Your task to perform on an android device: Open battery settings Image 0: 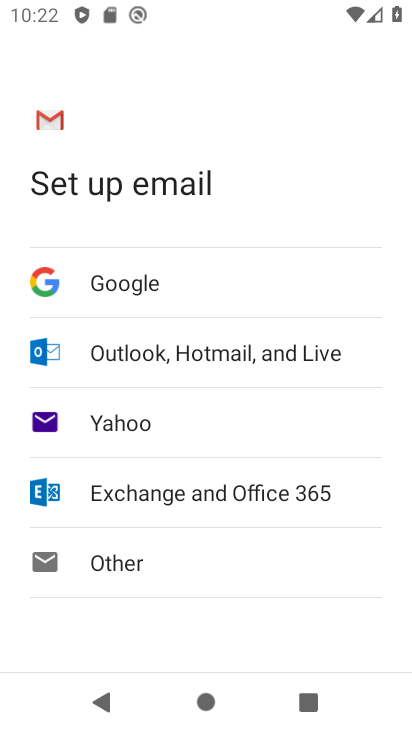
Step 0: press home button
Your task to perform on an android device: Open battery settings Image 1: 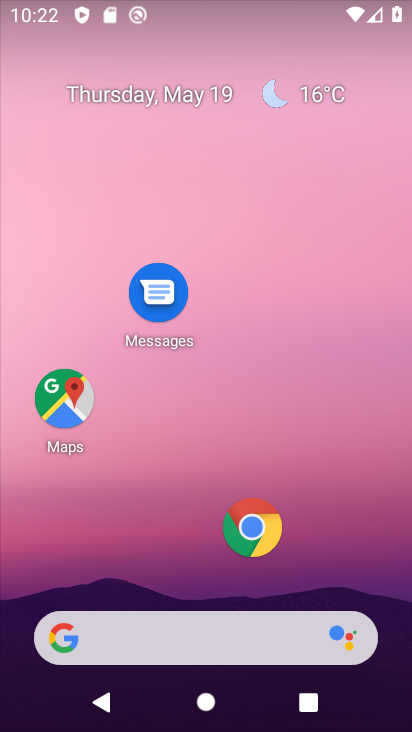
Step 1: drag from (195, 184) to (201, 134)
Your task to perform on an android device: Open battery settings Image 2: 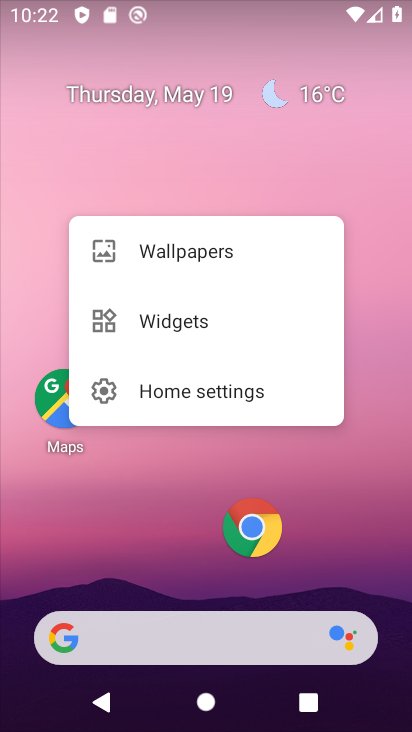
Step 2: click (48, 281)
Your task to perform on an android device: Open battery settings Image 3: 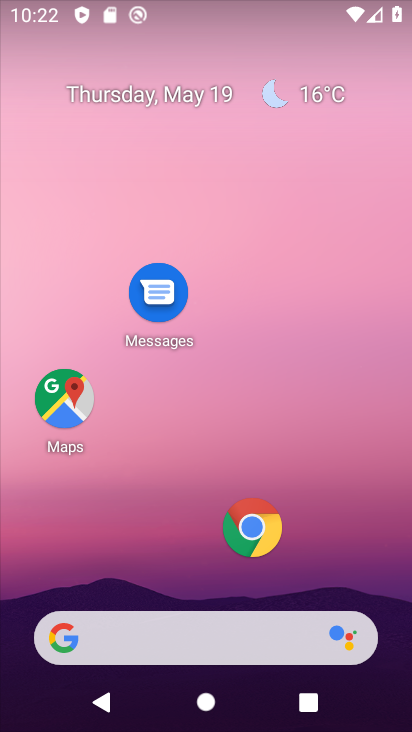
Step 3: click (264, 271)
Your task to perform on an android device: Open battery settings Image 4: 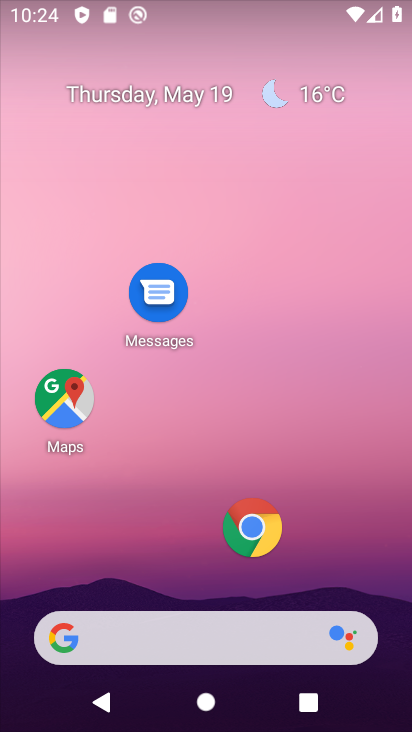
Step 4: drag from (200, 601) to (245, 193)
Your task to perform on an android device: Open battery settings Image 5: 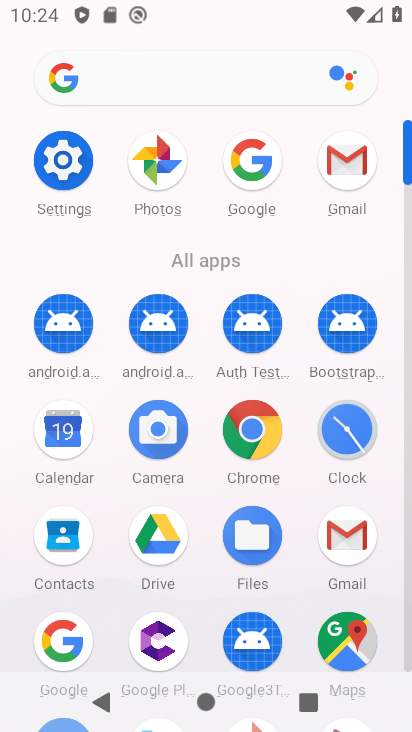
Step 5: drag from (196, 510) to (196, 122)
Your task to perform on an android device: Open battery settings Image 6: 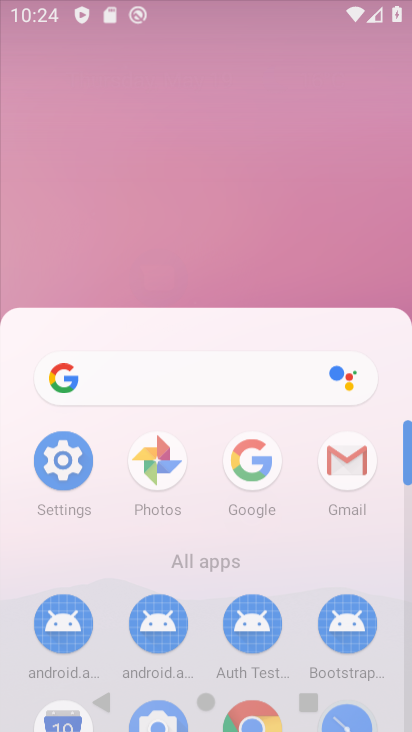
Step 6: click (175, 148)
Your task to perform on an android device: Open battery settings Image 7: 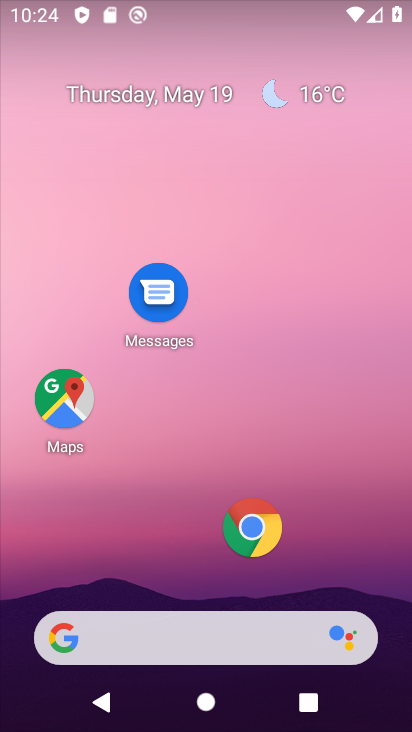
Step 7: click (74, 168)
Your task to perform on an android device: Open battery settings Image 8: 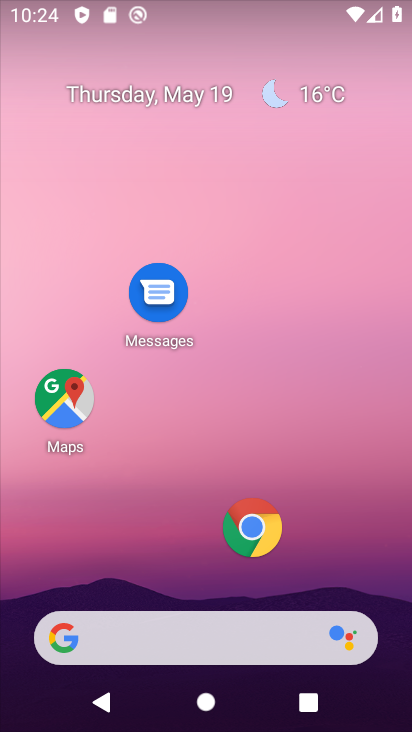
Step 8: drag from (222, 590) to (217, 221)
Your task to perform on an android device: Open battery settings Image 9: 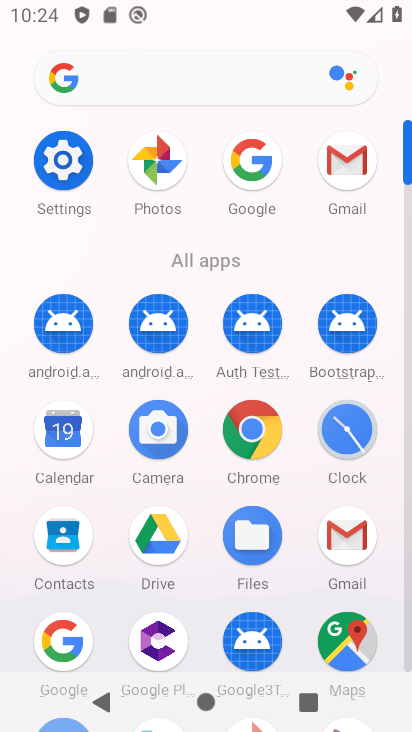
Step 9: click (63, 162)
Your task to perform on an android device: Open battery settings Image 10: 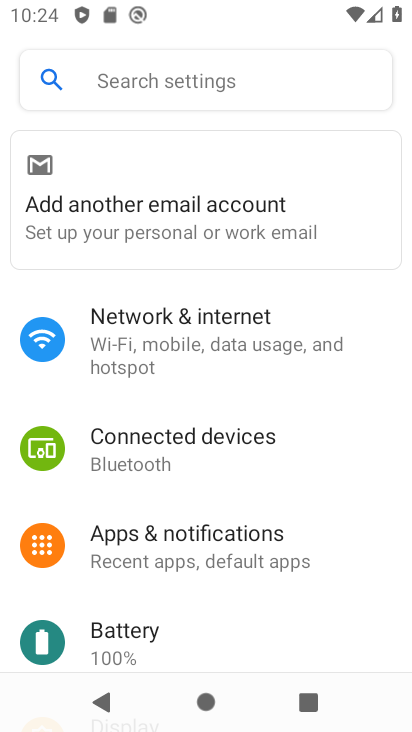
Step 10: click (118, 649)
Your task to perform on an android device: Open battery settings Image 11: 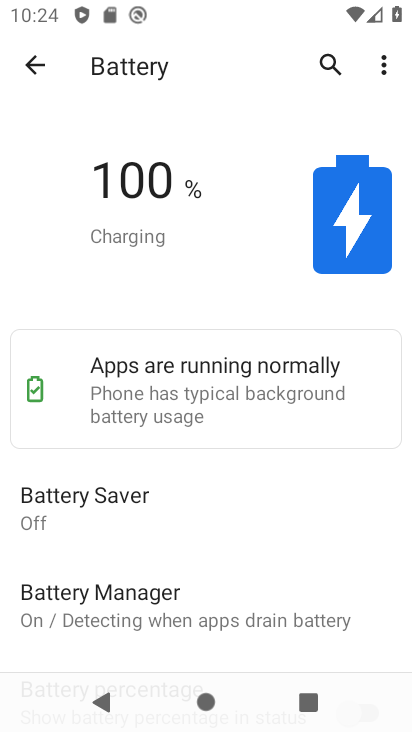
Step 11: task complete